Your task to perform on an android device: What is the news today? Image 0: 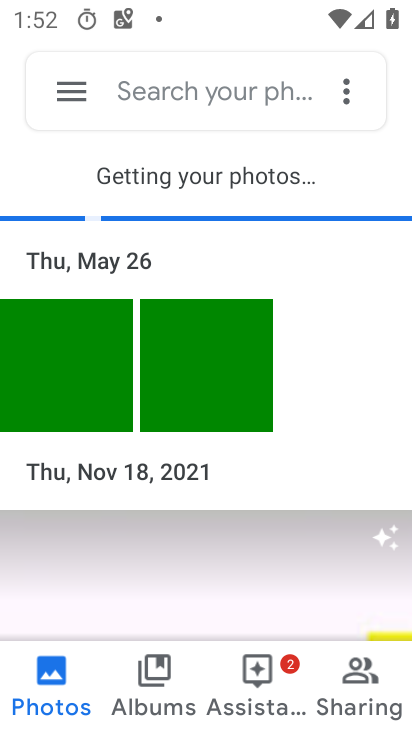
Step 0: press home button
Your task to perform on an android device: What is the news today? Image 1: 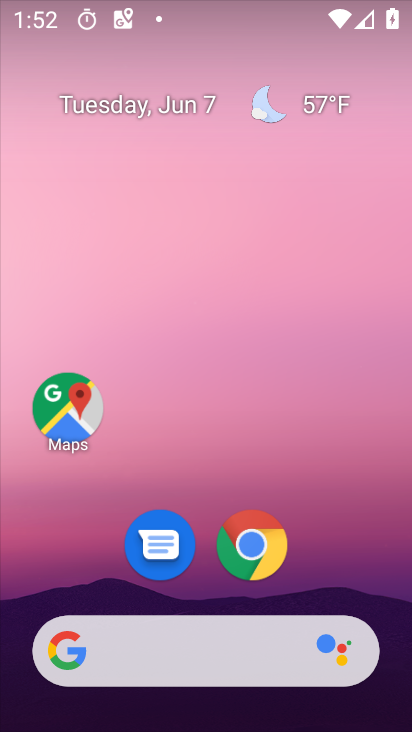
Step 1: drag from (352, 552) to (242, 59)
Your task to perform on an android device: What is the news today? Image 2: 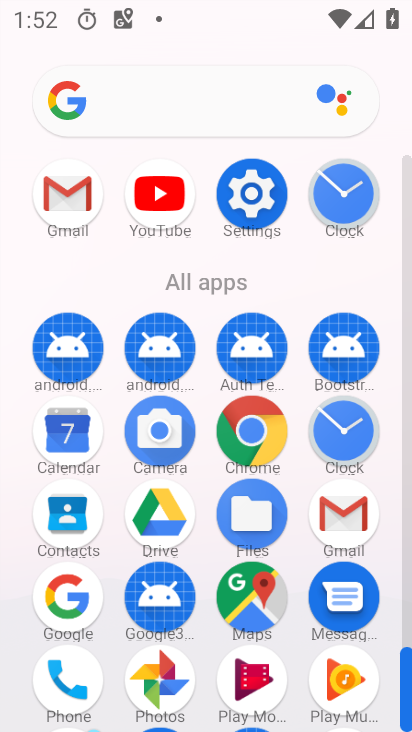
Step 2: click (73, 618)
Your task to perform on an android device: What is the news today? Image 3: 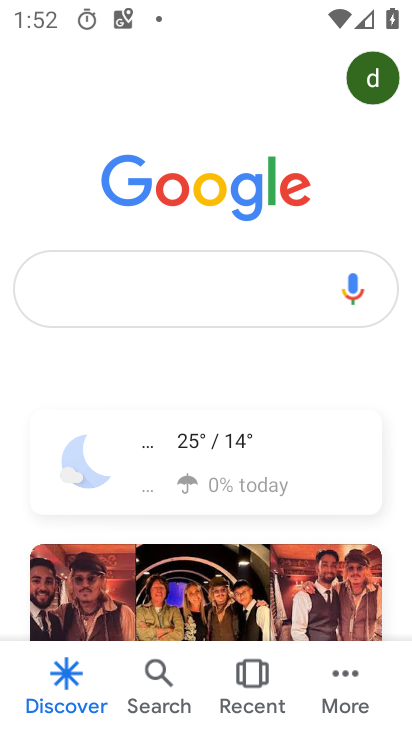
Step 3: click (144, 287)
Your task to perform on an android device: What is the news today? Image 4: 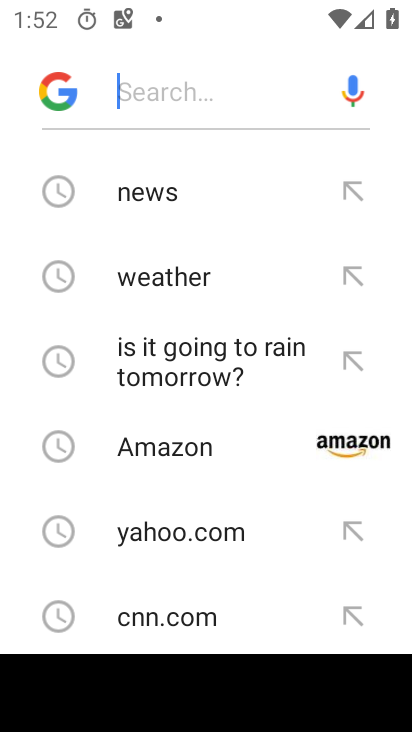
Step 4: drag from (229, 536) to (243, 95)
Your task to perform on an android device: What is the news today? Image 5: 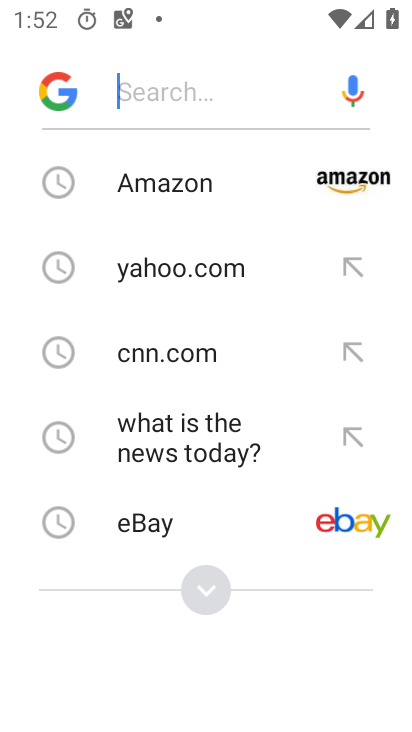
Step 5: click (197, 438)
Your task to perform on an android device: What is the news today? Image 6: 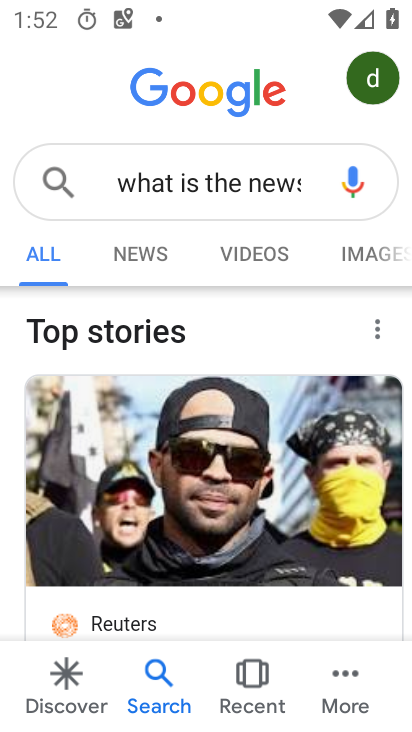
Step 6: task complete